Your task to perform on an android device: Open Google Maps and go to "Timeline" Image 0: 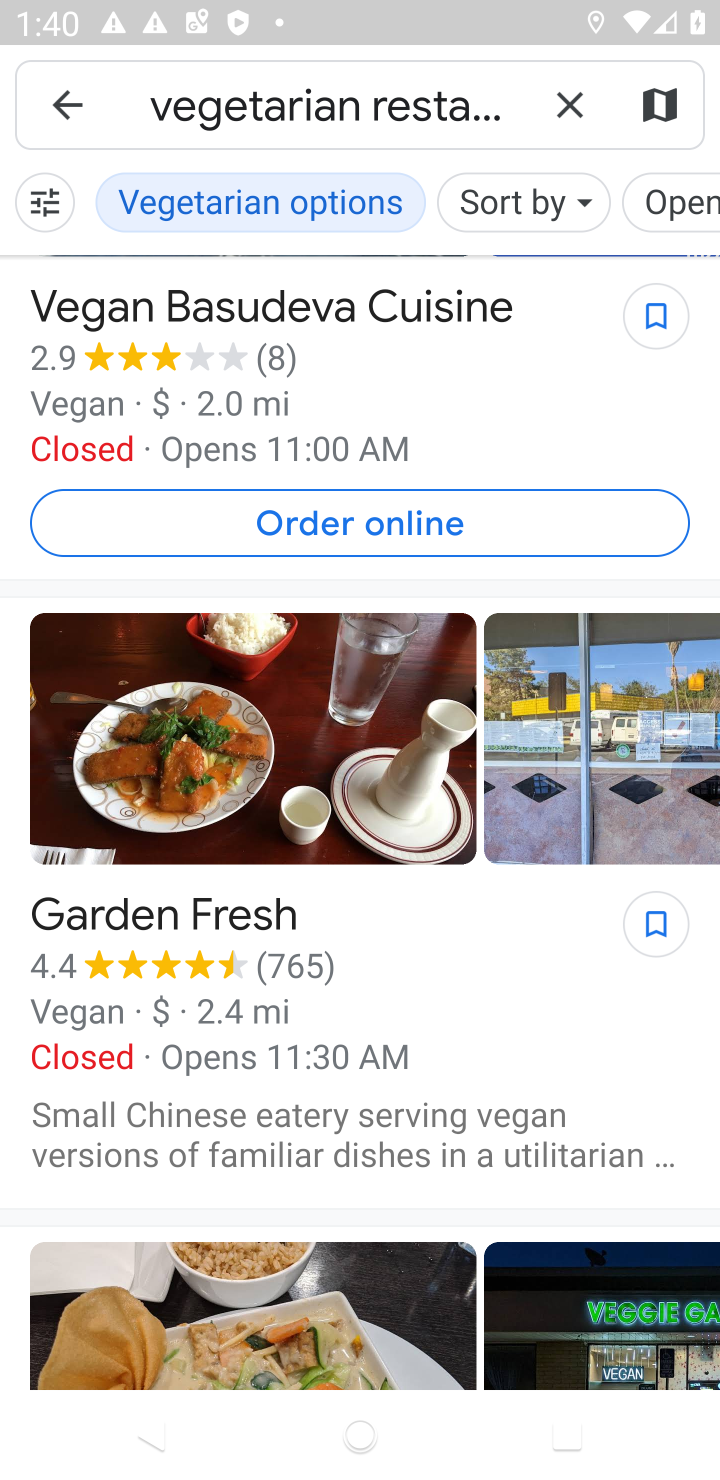
Step 0: press home button
Your task to perform on an android device: Open Google Maps and go to "Timeline" Image 1: 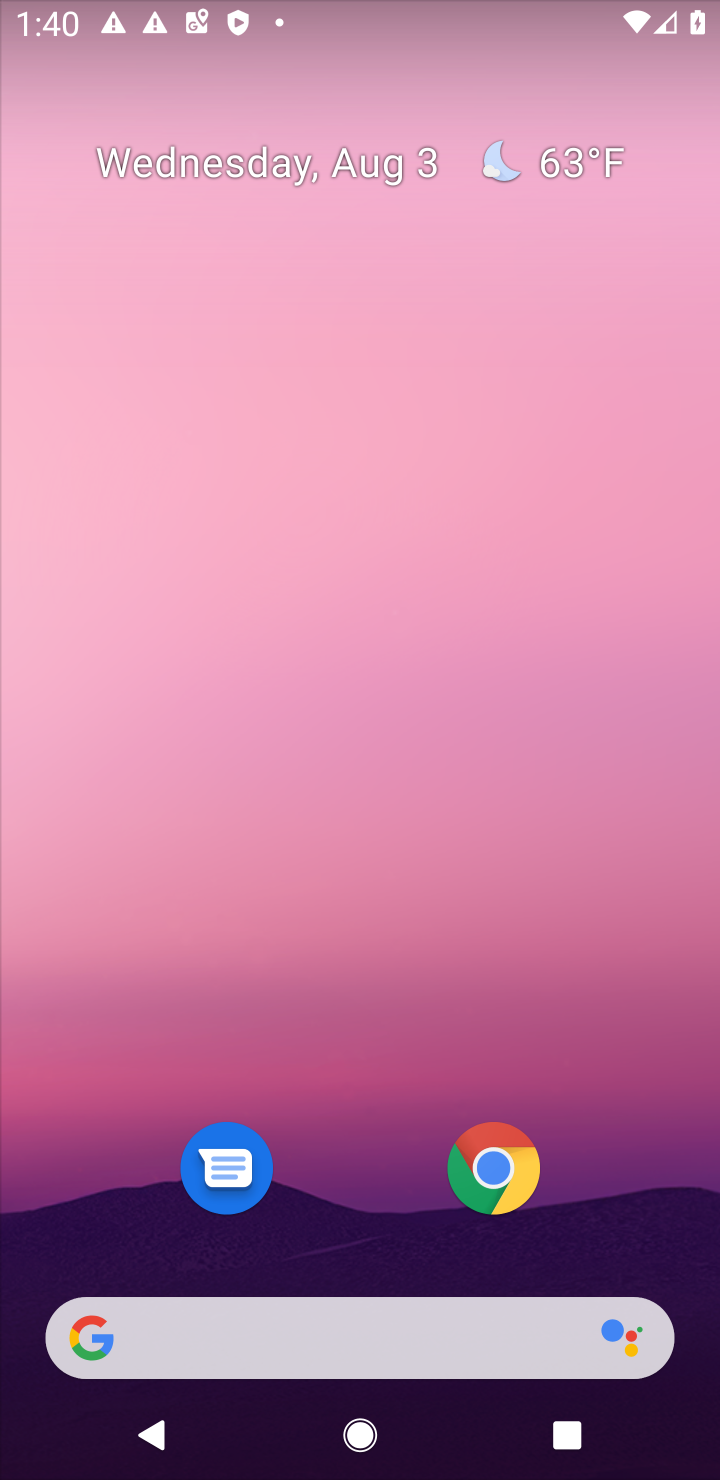
Step 1: drag from (662, 1232) to (576, 229)
Your task to perform on an android device: Open Google Maps and go to "Timeline" Image 2: 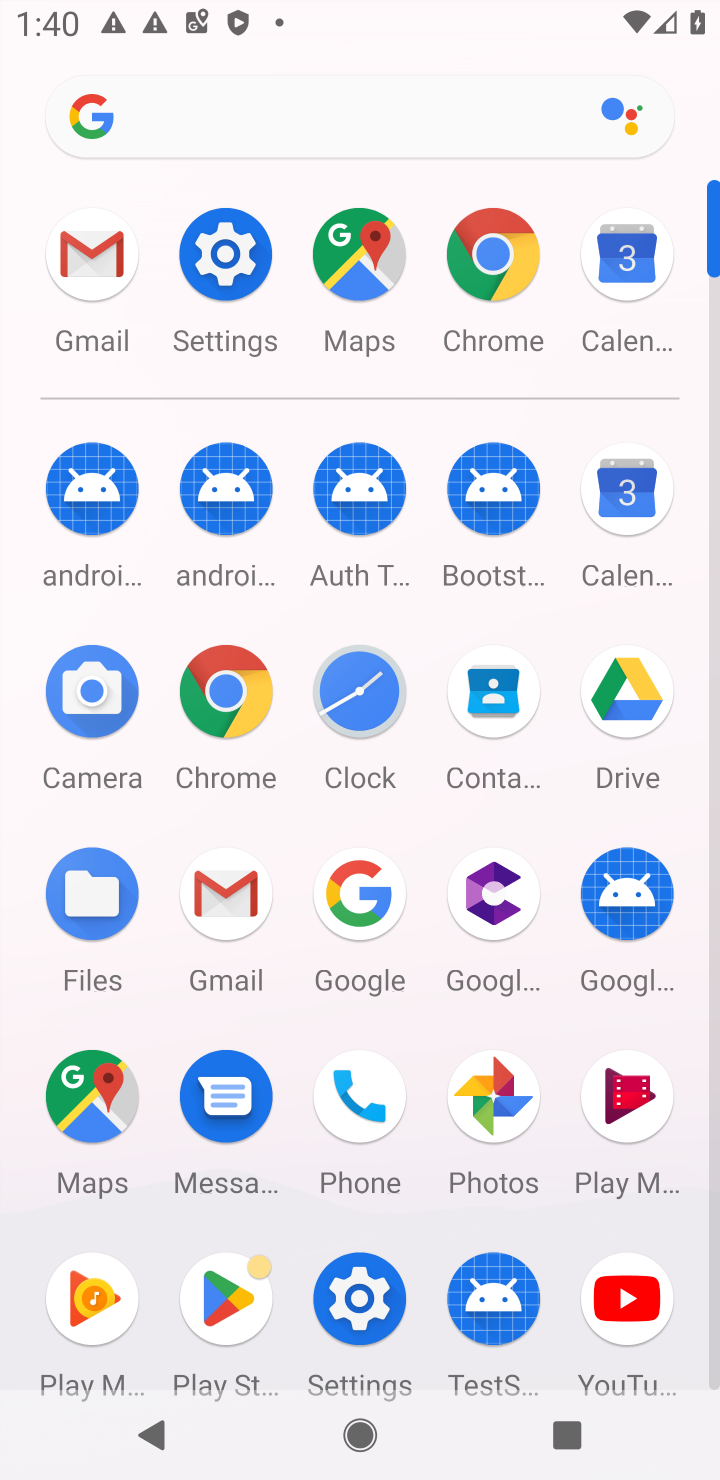
Step 2: click (94, 1105)
Your task to perform on an android device: Open Google Maps and go to "Timeline" Image 3: 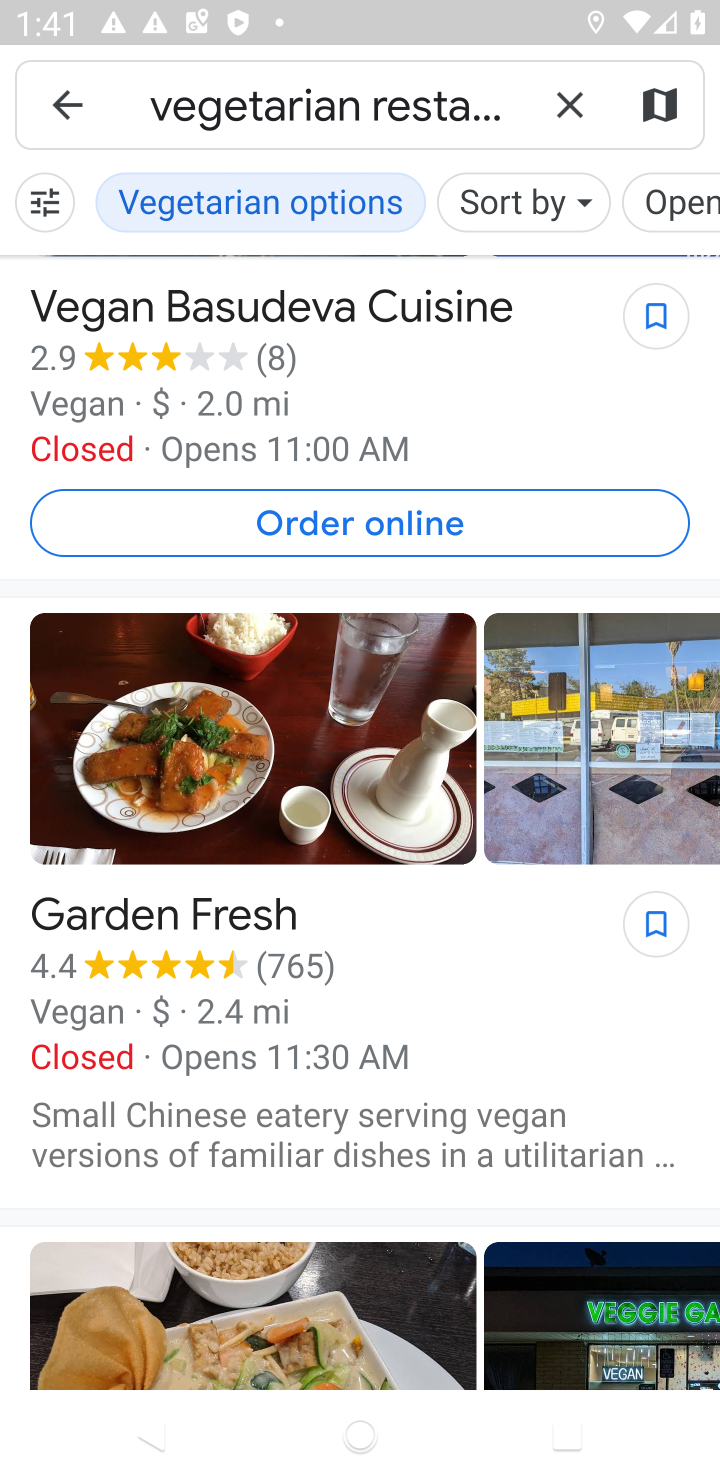
Step 3: click (562, 101)
Your task to perform on an android device: Open Google Maps and go to "Timeline" Image 4: 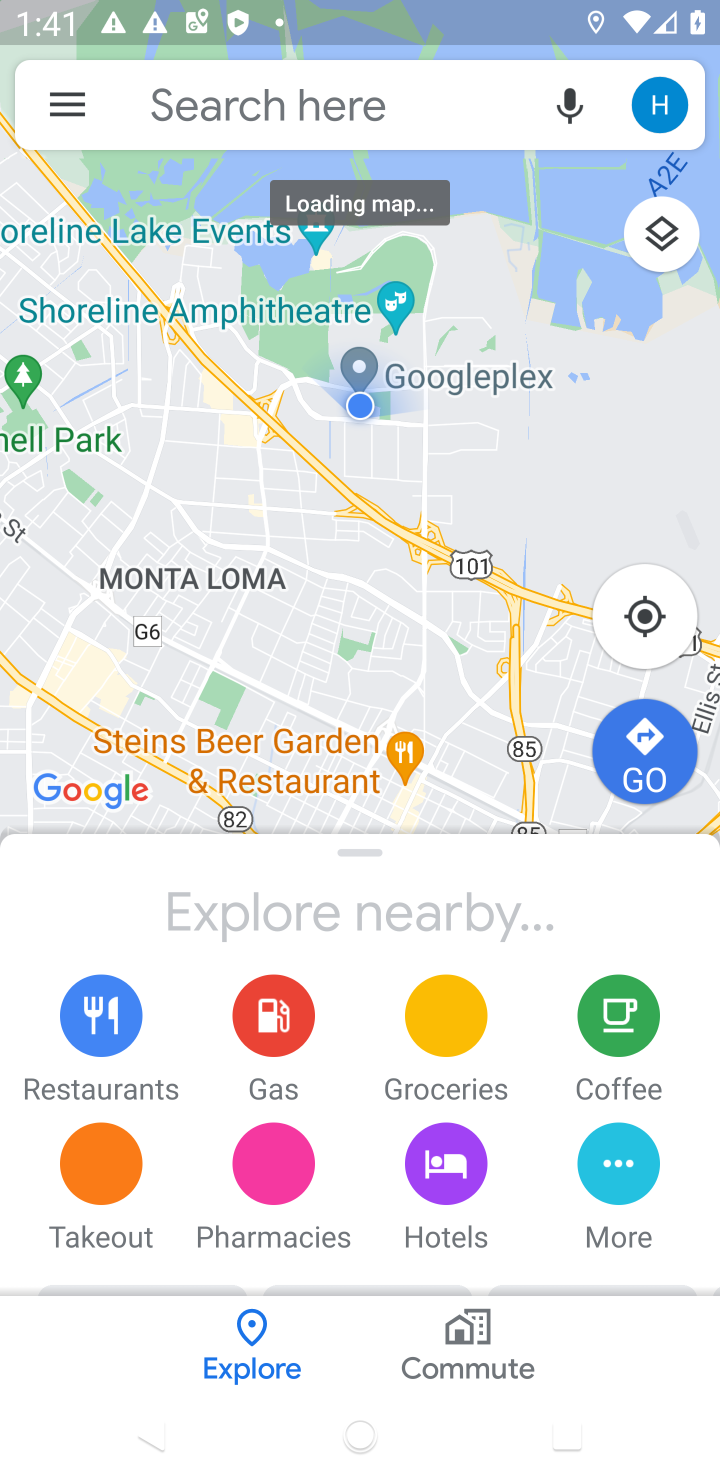
Step 4: click (60, 102)
Your task to perform on an android device: Open Google Maps and go to "Timeline" Image 5: 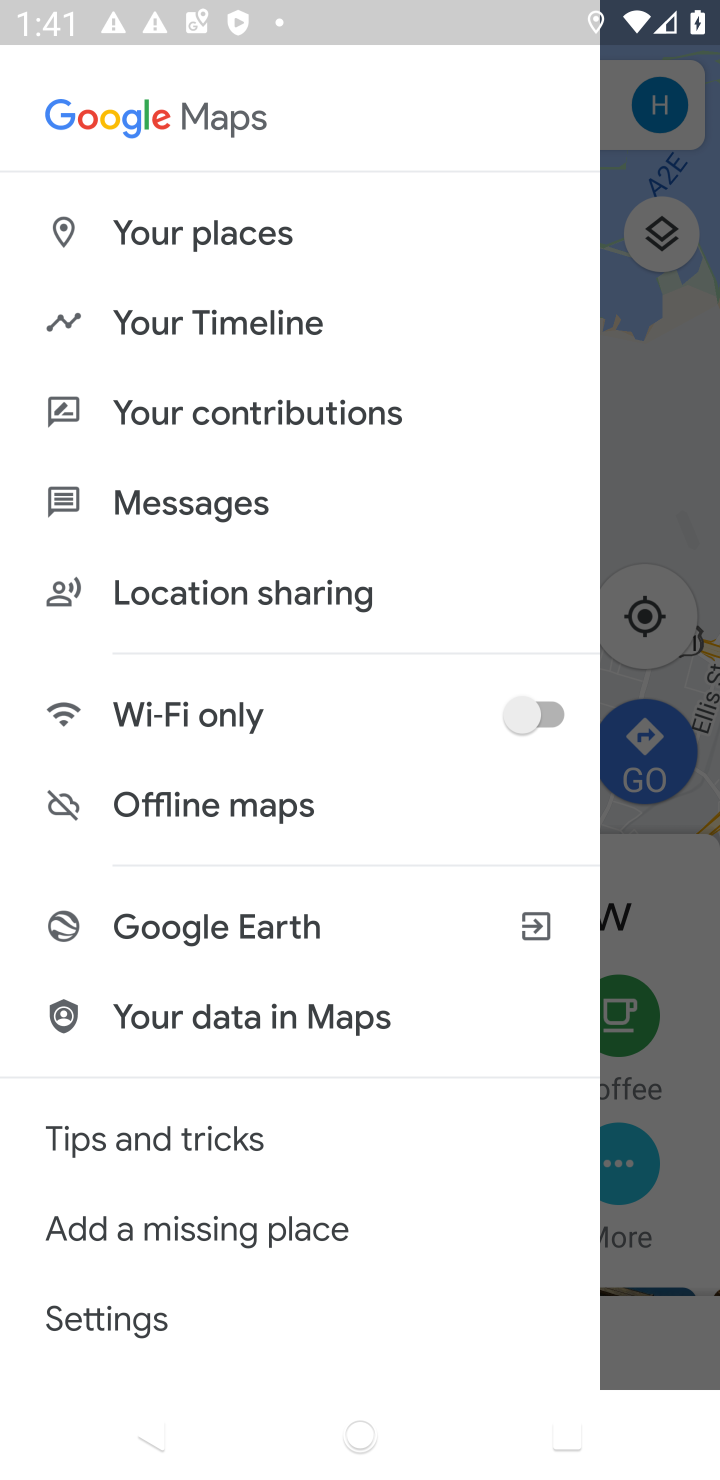
Step 5: click (225, 319)
Your task to perform on an android device: Open Google Maps and go to "Timeline" Image 6: 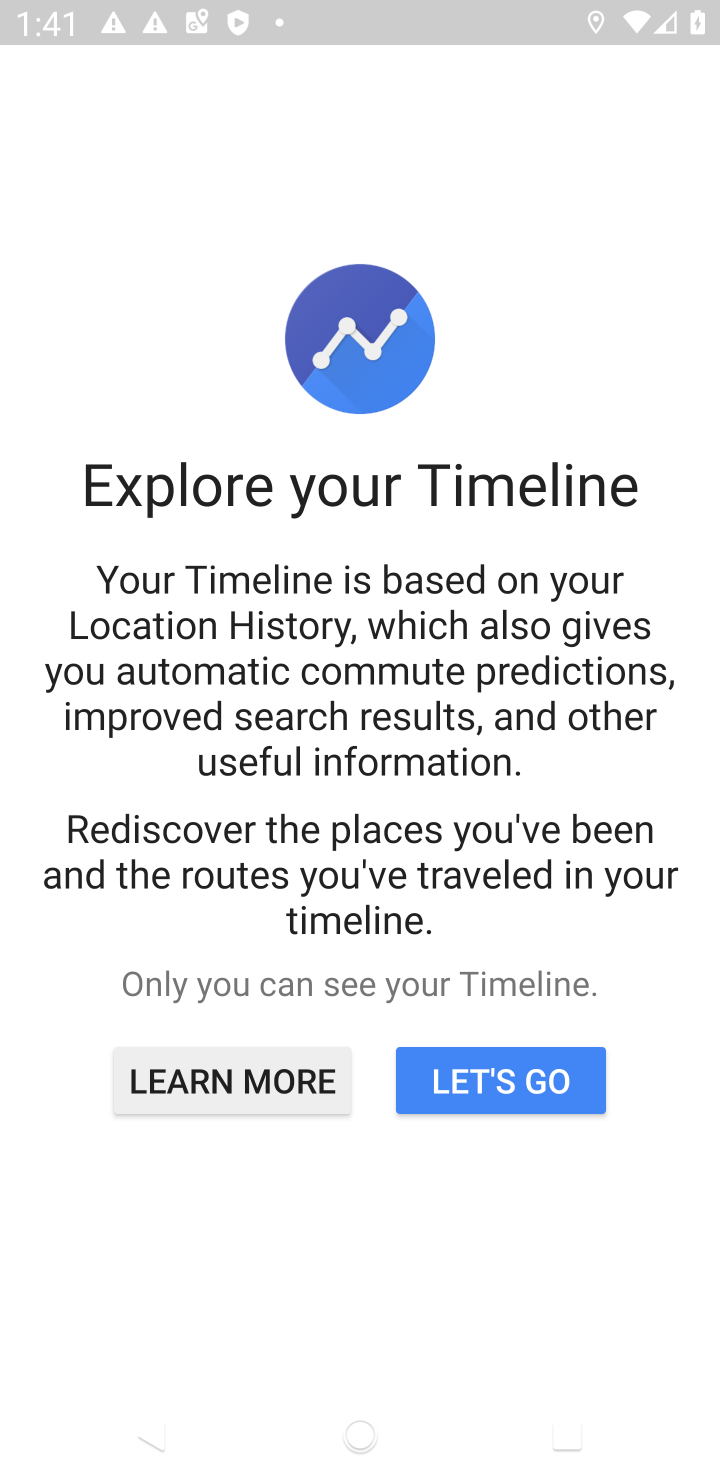
Step 6: click (496, 1086)
Your task to perform on an android device: Open Google Maps and go to "Timeline" Image 7: 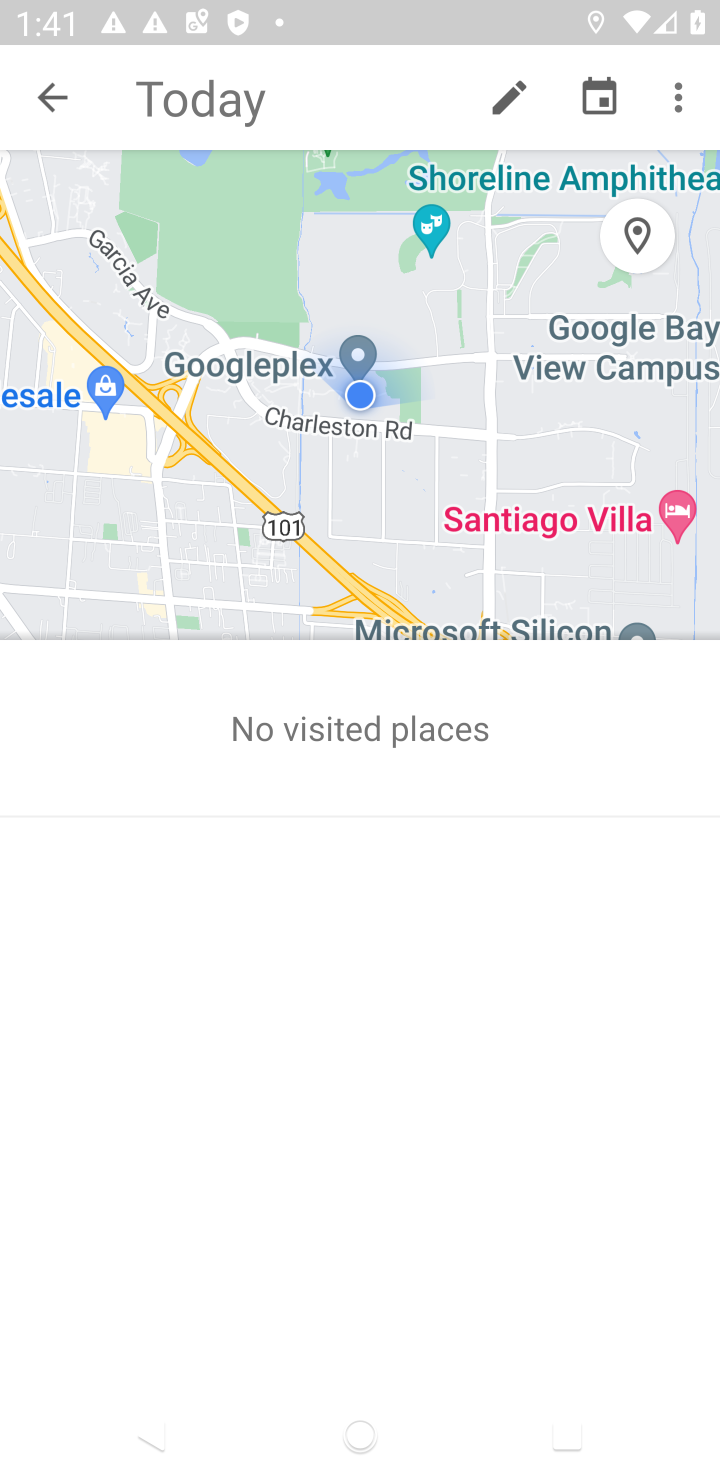
Step 7: task complete